Your task to perform on an android device: check android version Image 0: 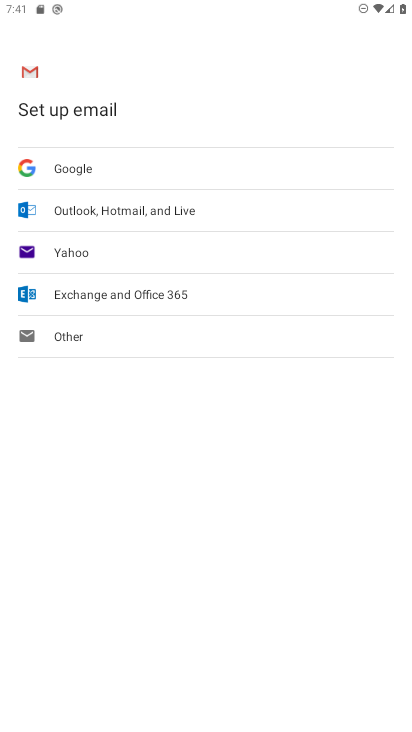
Step 0: press home button
Your task to perform on an android device: check android version Image 1: 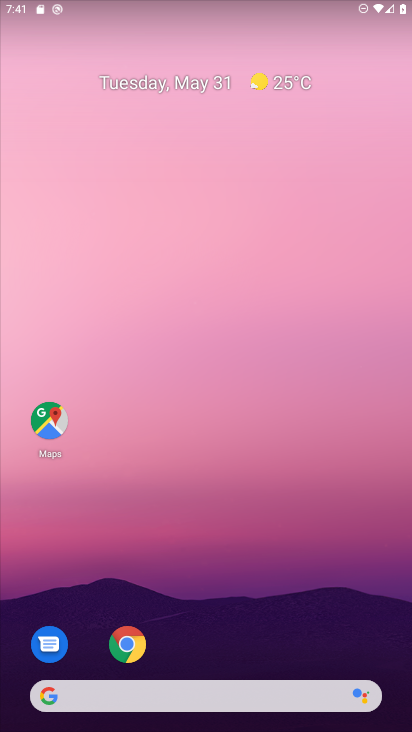
Step 1: drag from (237, 722) to (200, 75)
Your task to perform on an android device: check android version Image 2: 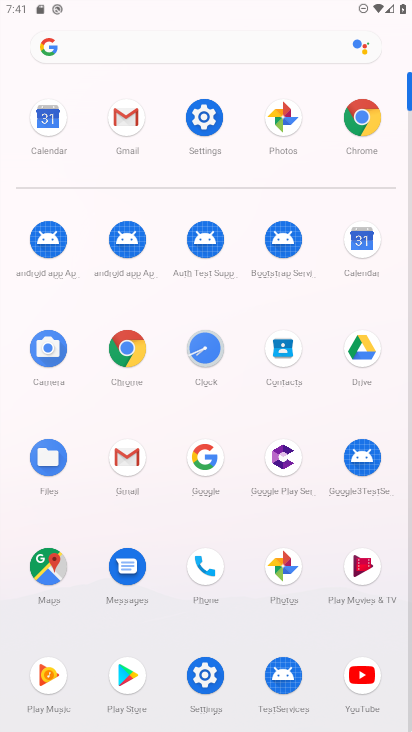
Step 2: click (201, 104)
Your task to perform on an android device: check android version Image 3: 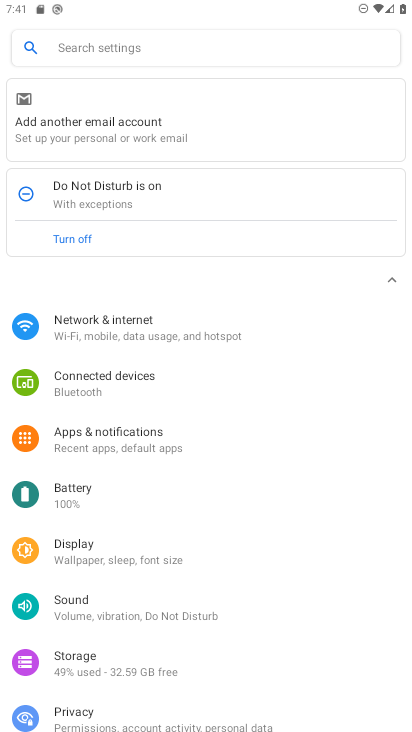
Step 3: click (123, 321)
Your task to perform on an android device: check android version Image 4: 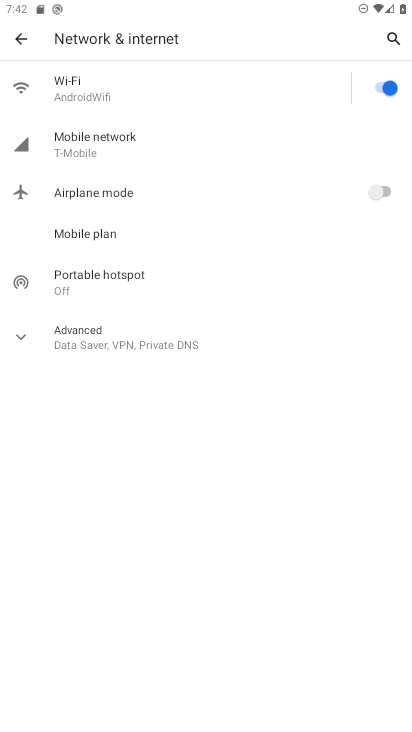
Step 4: click (36, 39)
Your task to perform on an android device: check android version Image 5: 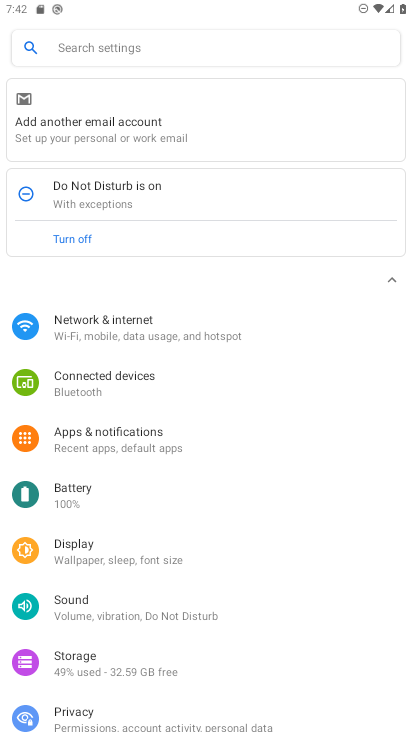
Step 5: click (164, 51)
Your task to perform on an android device: check android version Image 6: 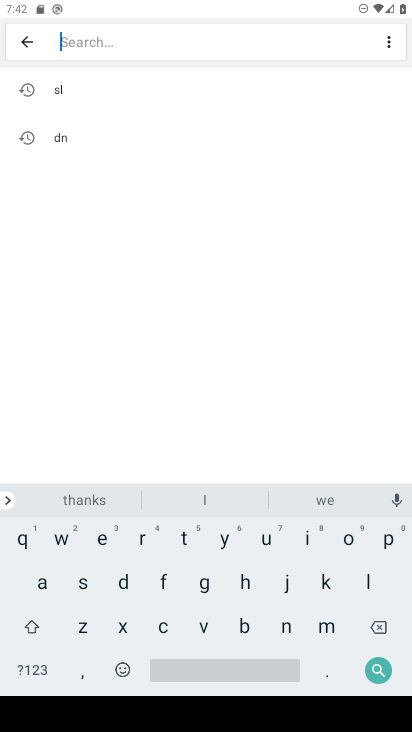
Step 6: click (40, 575)
Your task to perform on an android device: check android version Image 7: 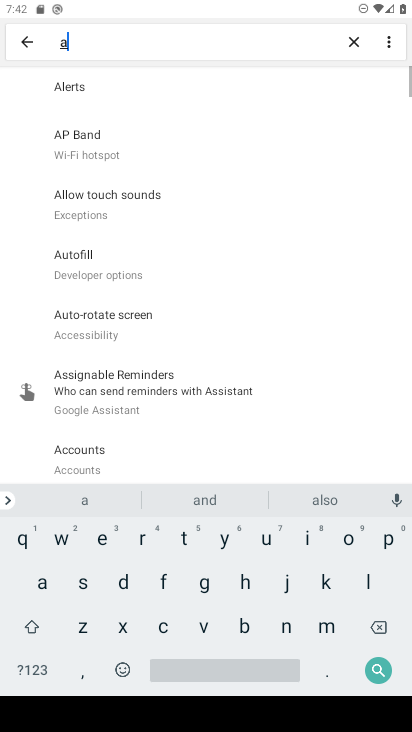
Step 7: click (290, 640)
Your task to perform on an android device: check android version Image 8: 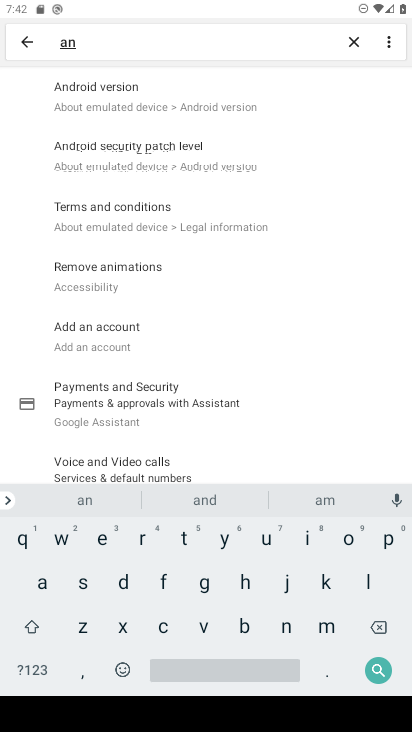
Step 8: click (81, 101)
Your task to perform on an android device: check android version Image 9: 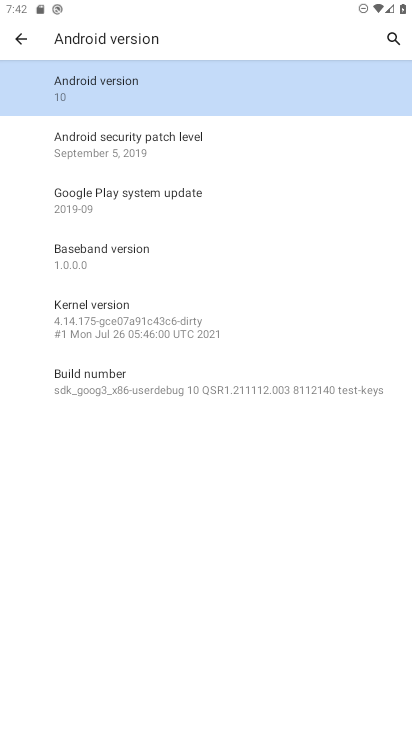
Step 9: click (127, 94)
Your task to perform on an android device: check android version Image 10: 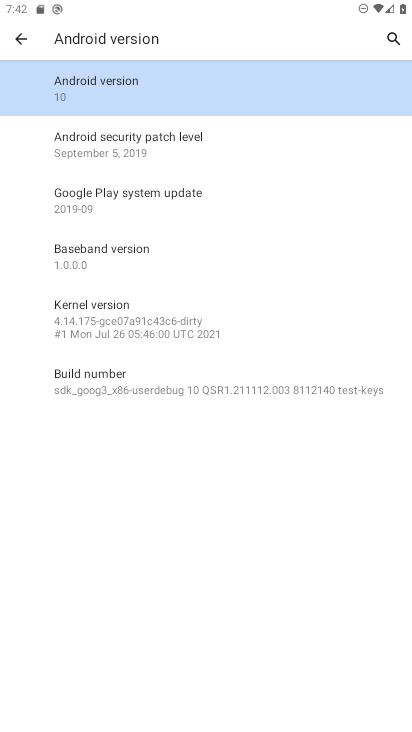
Step 10: task complete